Your task to perform on an android device: toggle data saver in the chrome app Image 0: 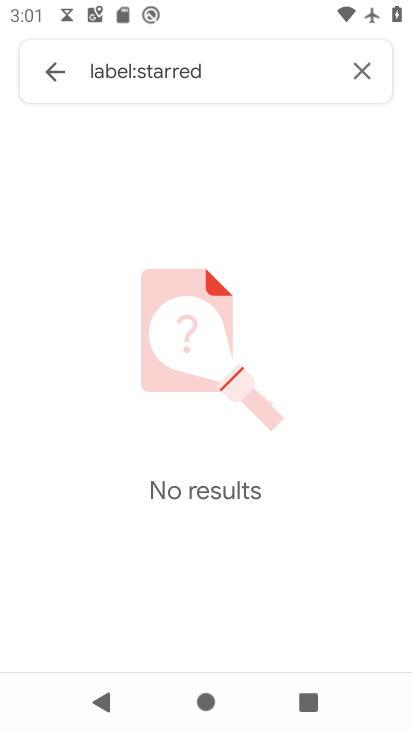
Step 0: press home button
Your task to perform on an android device: toggle data saver in the chrome app Image 1: 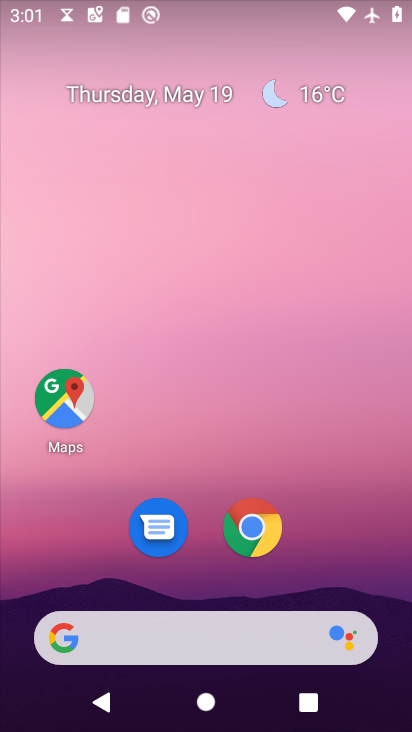
Step 1: click (265, 535)
Your task to perform on an android device: toggle data saver in the chrome app Image 2: 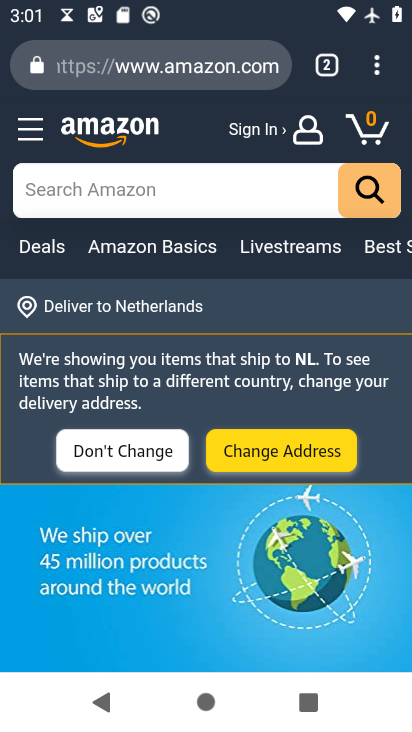
Step 2: click (379, 65)
Your task to perform on an android device: toggle data saver in the chrome app Image 3: 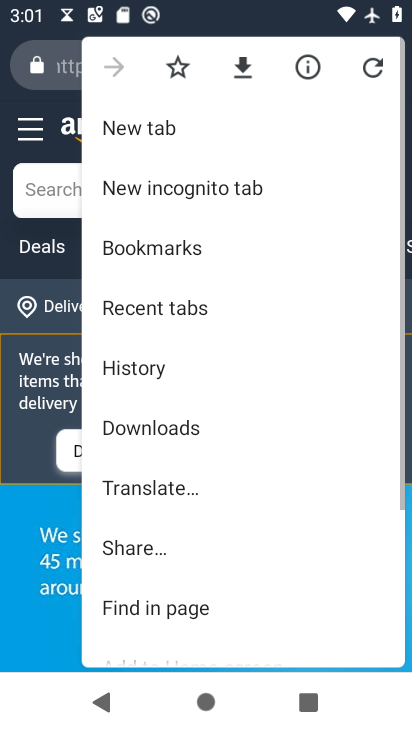
Step 3: drag from (260, 546) to (242, 130)
Your task to perform on an android device: toggle data saver in the chrome app Image 4: 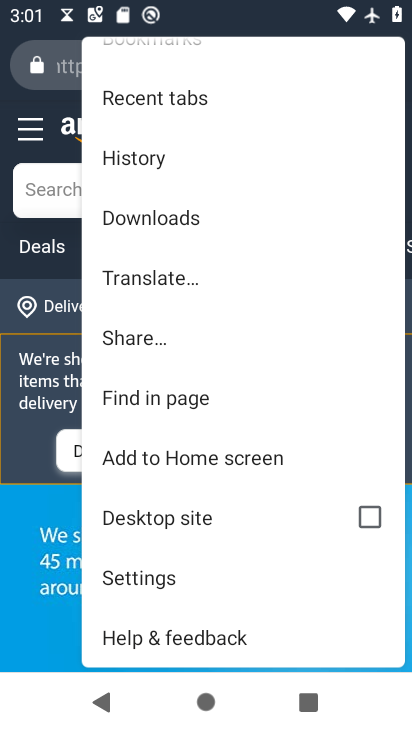
Step 4: click (199, 571)
Your task to perform on an android device: toggle data saver in the chrome app Image 5: 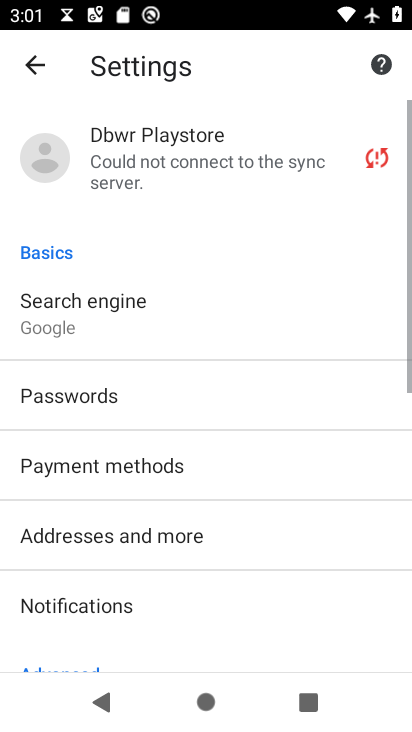
Step 5: drag from (239, 589) to (171, 10)
Your task to perform on an android device: toggle data saver in the chrome app Image 6: 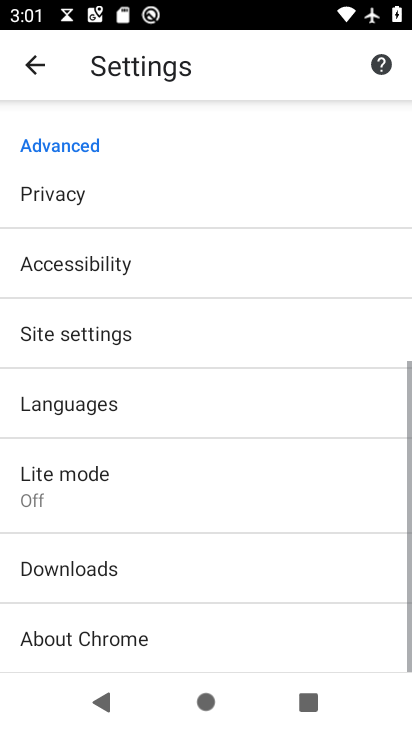
Step 6: click (184, 493)
Your task to perform on an android device: toggle data saver in the chrome app Image 7: 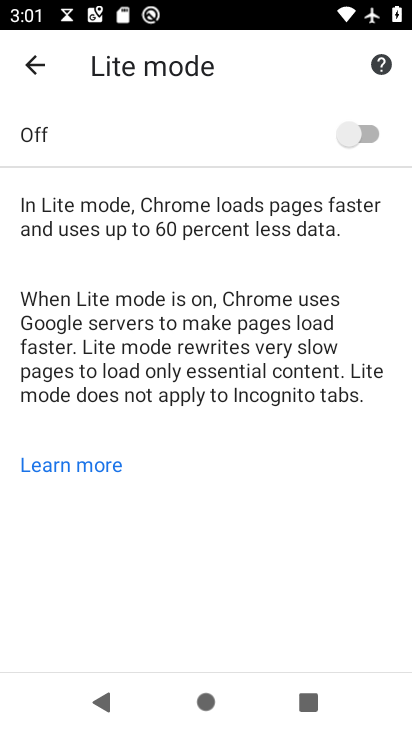
Step 7: click (375, 123)
Your task to perform on an android device: toggle data saver in the chrome app Image 8: 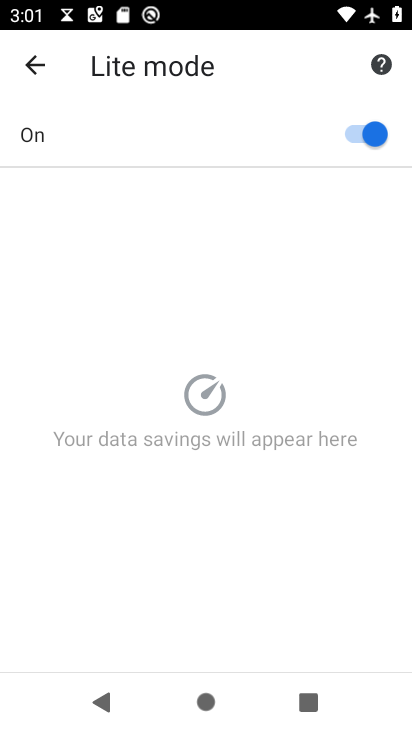
Step 8: task complete